Your task to perform on an android device: Go to Google Image 0: 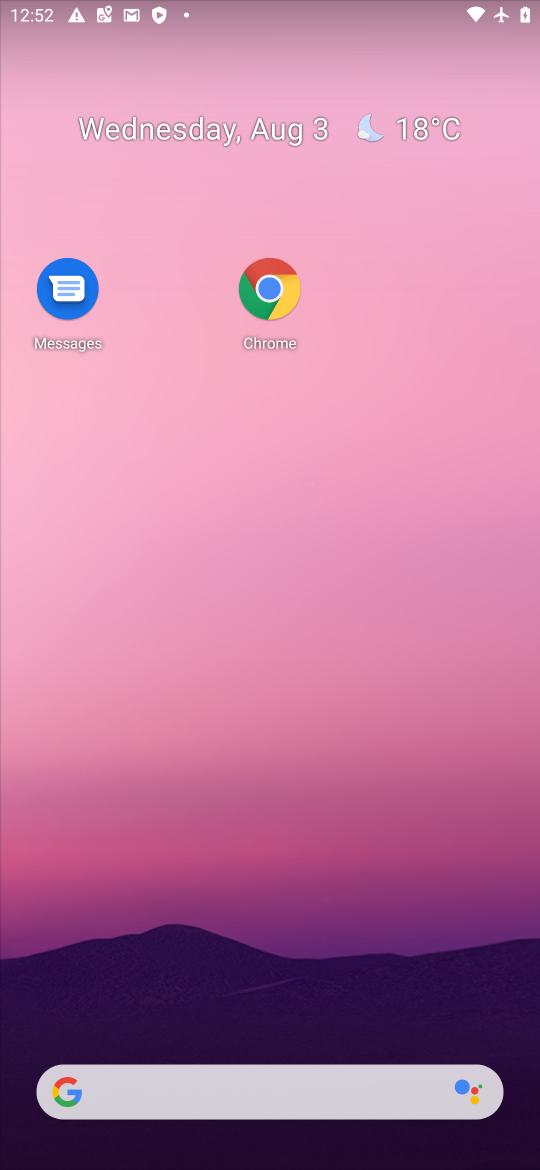
Step 0: drag from (336, 994) to (285, 81)
Your task to perform on an android device: Go to Google Image 1: 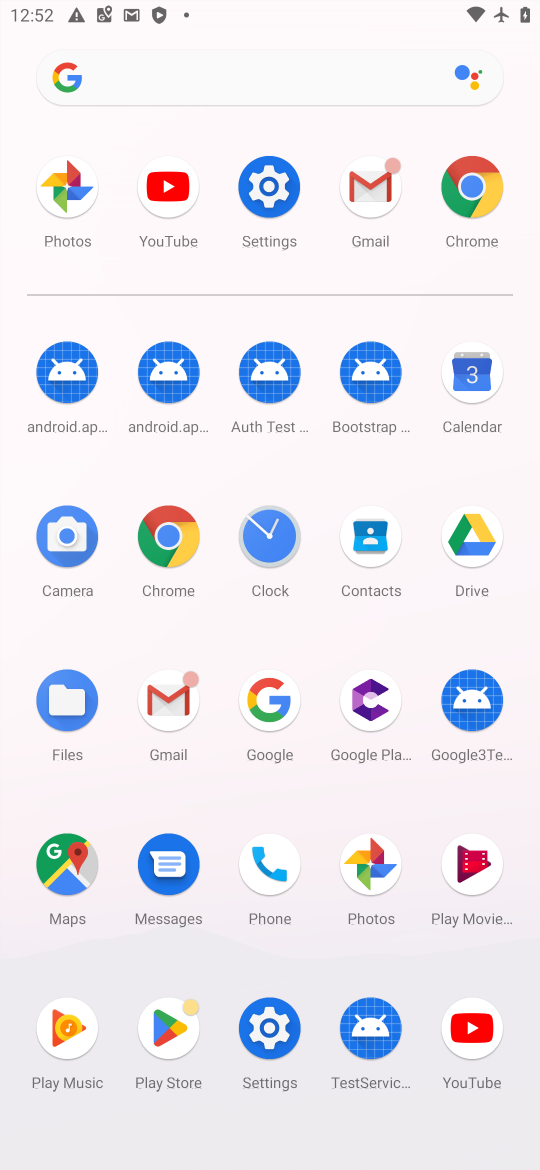
Step 1: click (169, 539)
Your task to perform on an android device: Go to Google Image 2: 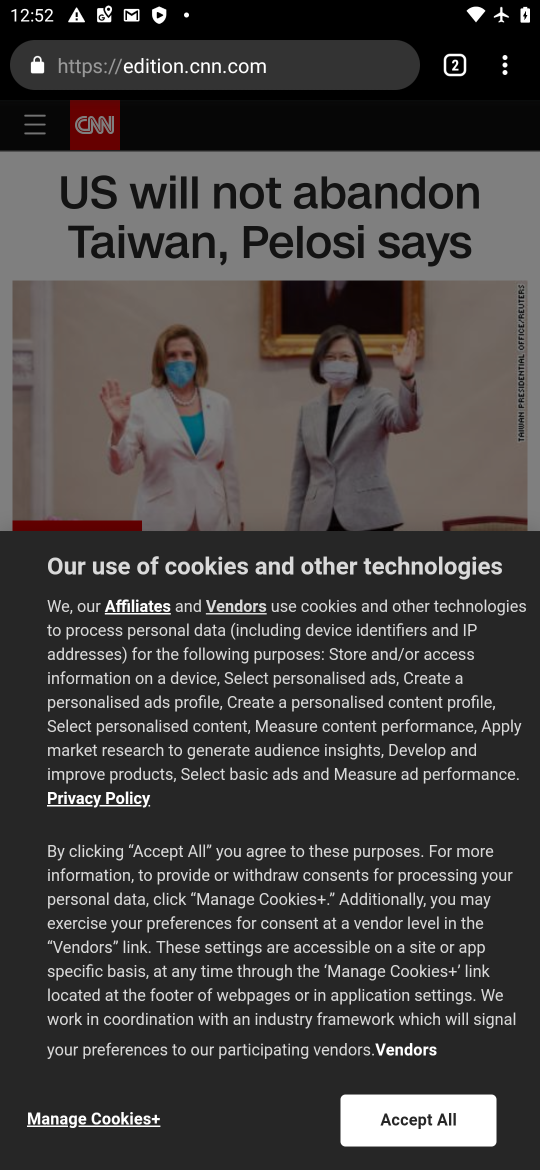
Step 2: click (314, 83)
Your task to perform on an android device: Go to Google Image 3: 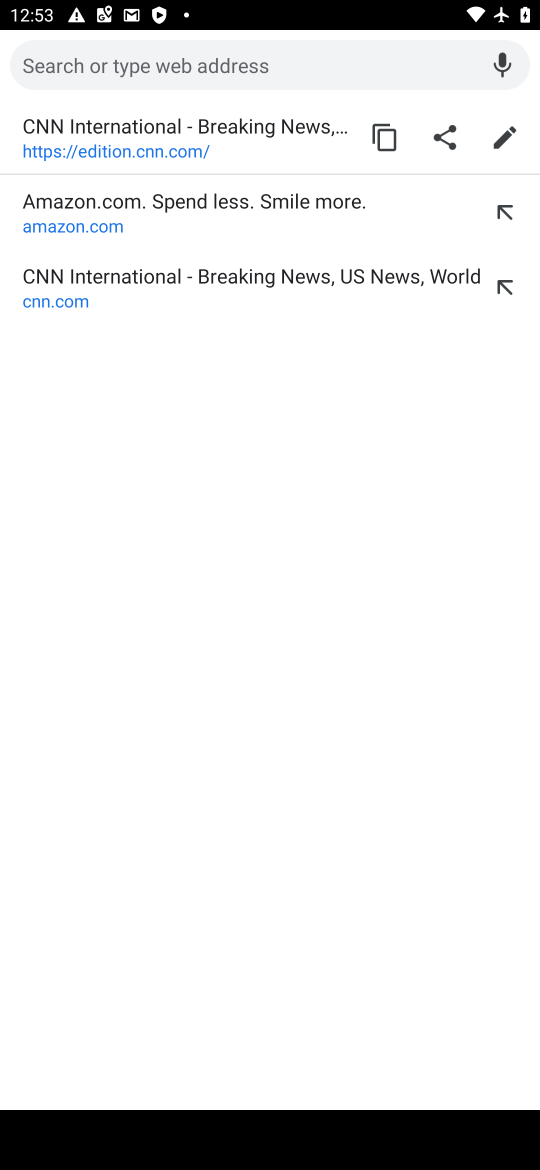
Step 3: type "google"
Your task to perform on an android device: Go to Google Image 4: 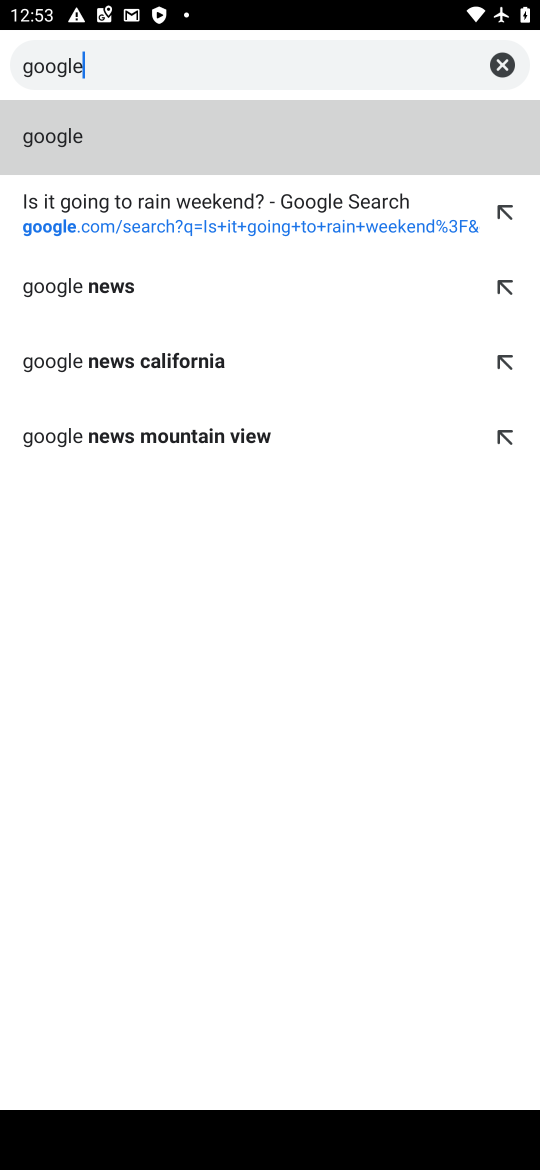
Step 4: click (113, 127)
Your task to perform on an android device: Go to Google Image 5: 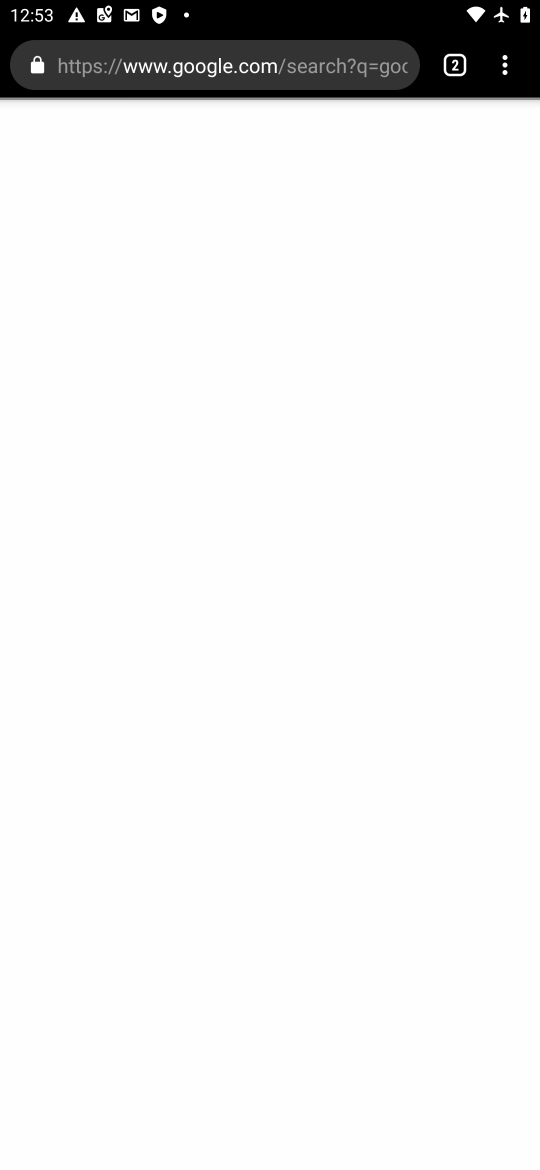
Step 5: task complete